Your task to perform on an android device: Open notification settings Image 0: 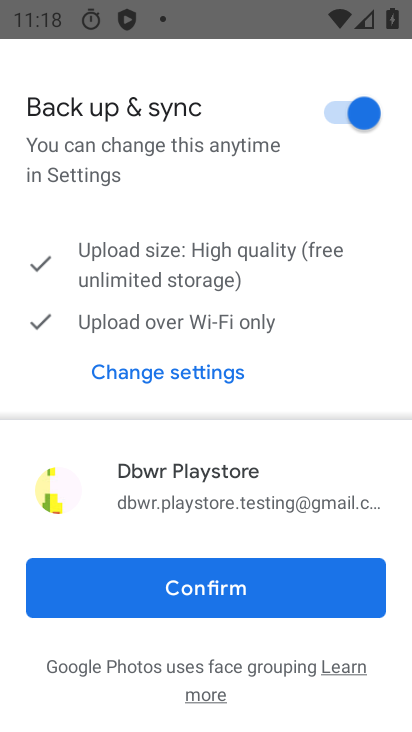
Step 0: press home button
Your task to perform on an android device: Open notification settings Image 1: 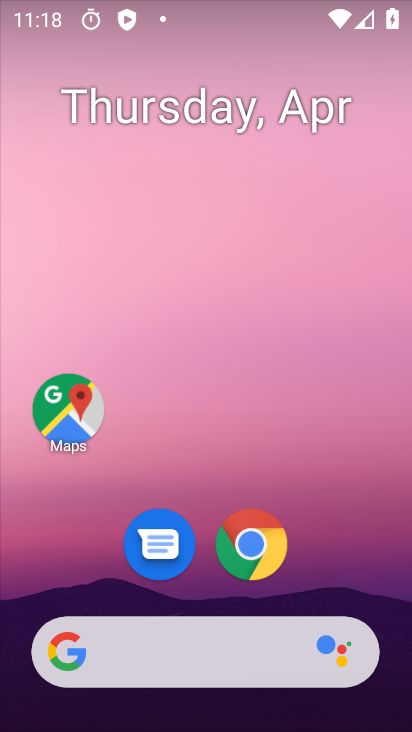
Step 1: drag from (147, 414) to (279, 175)
Your task to perform on an android device: Open notification settings Image 2: 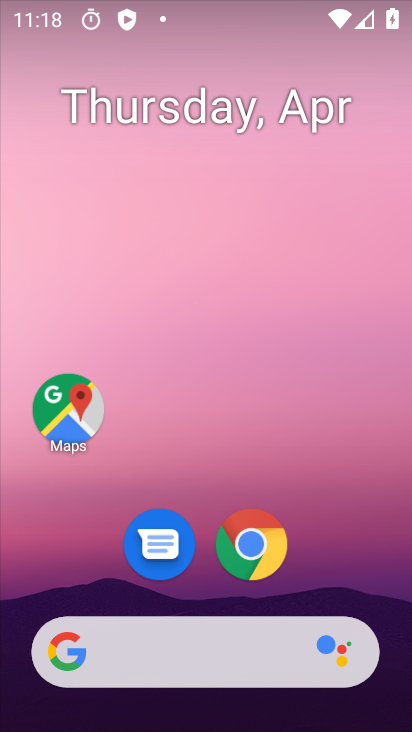
Step 2: drag from (165, 339) to (202, 260)
Your task to perform on an android device: Open notification settings Image 3: 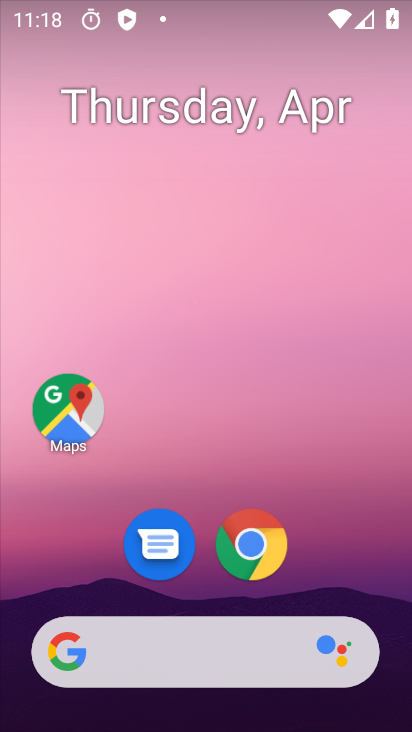
Step 3: drag from (68, 550) to (266, 180)
Your task to perform on an android device: Open notification settings Image 4: 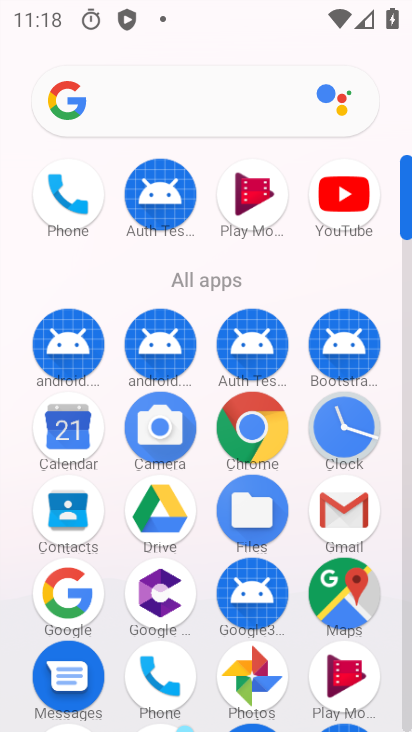
Step 4: drag from (249, 590) to (369, 203)
Your task to perform on an android device: Open notification settings Image 5: 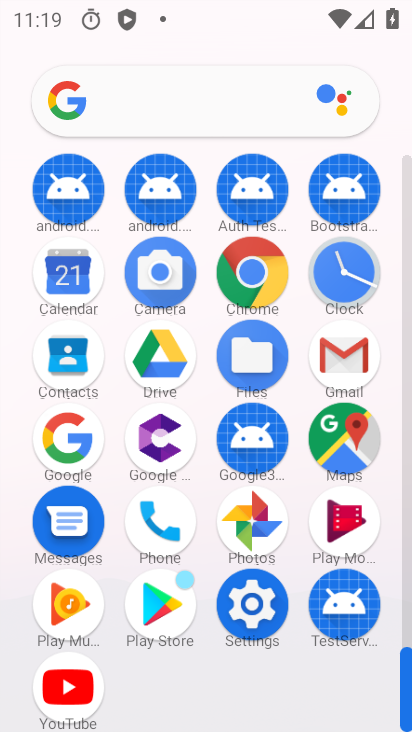
Step 5: click (259, 595)
Your task to perform on an android device: Open notification settings Image 6: 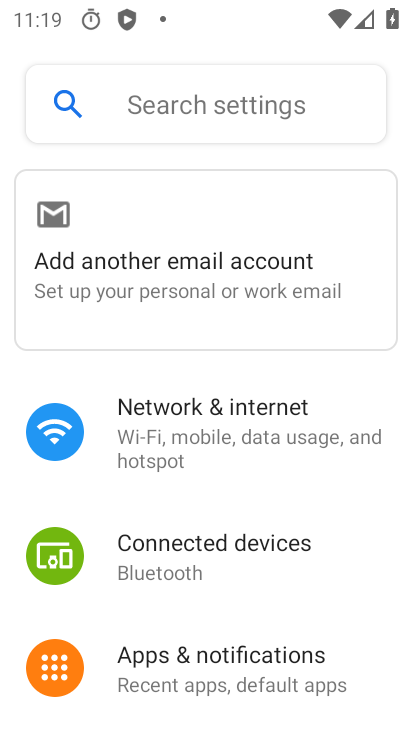
Step 6: click (188, 664)
Your task to perform on an android device: Open notification settings Image 7: 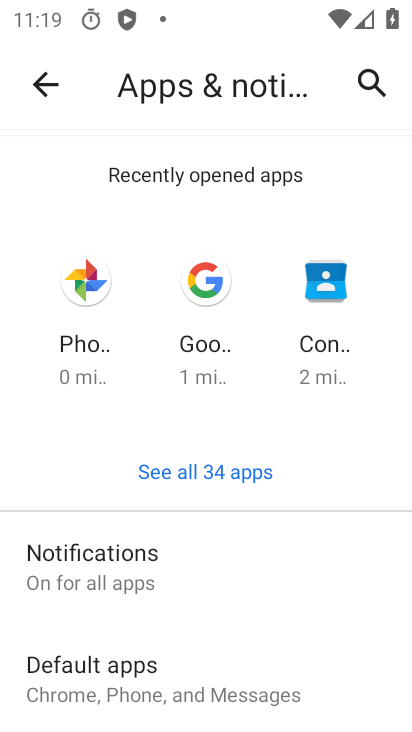
Step 7: click (142, 550)
Your task to perform on an android device: Open notification settings Image 8: 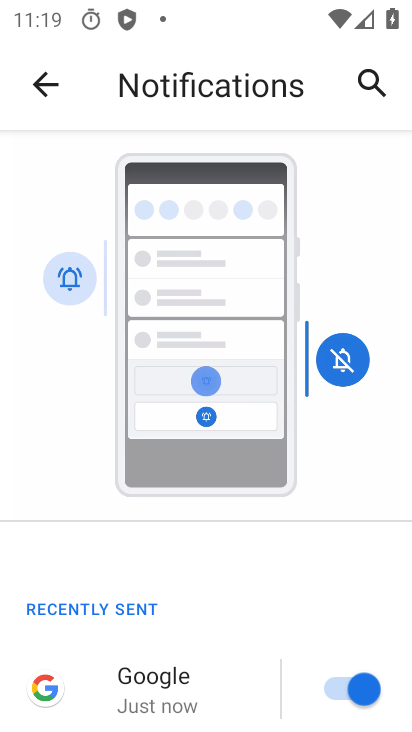
Step 8: task complete